Your task to perform on an android device: toggle notifications settings in the gmail app Image 0: 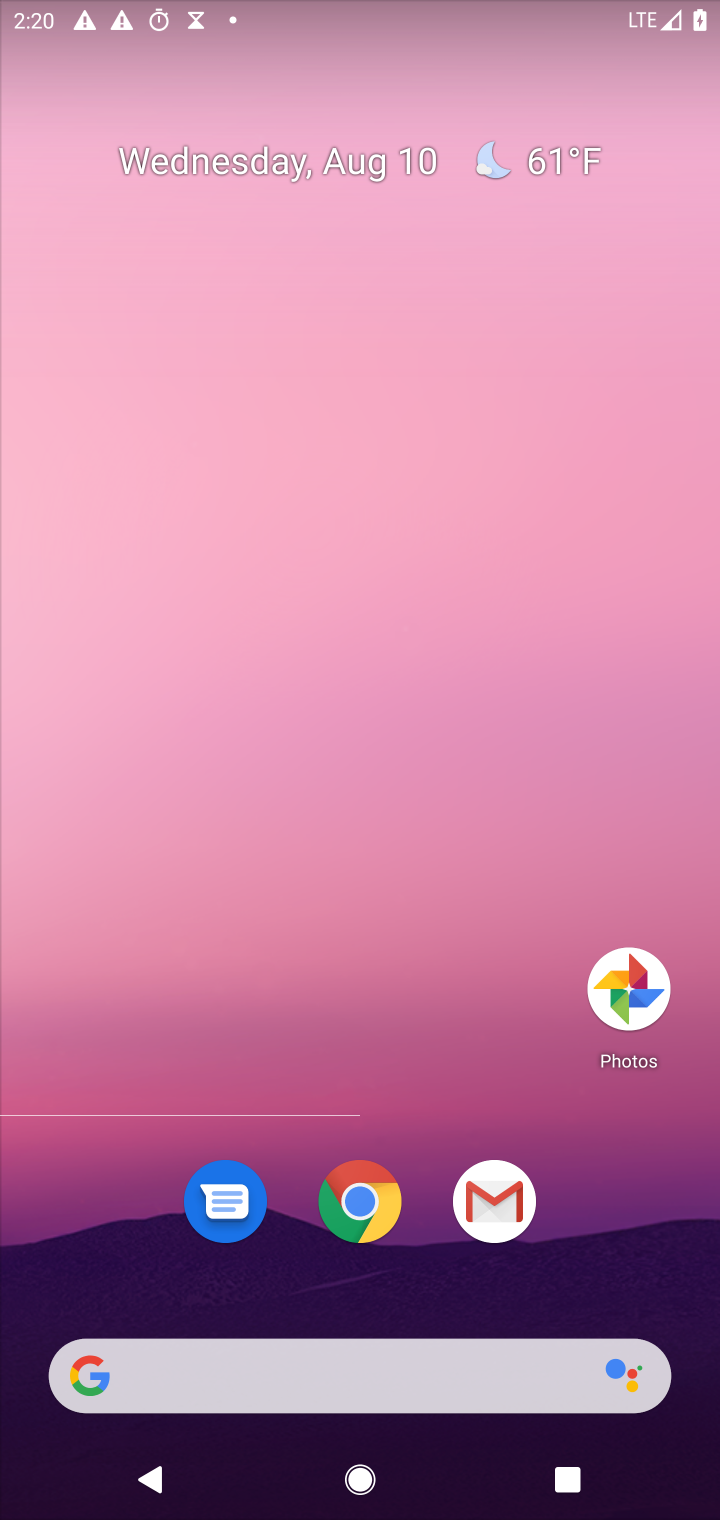
Step 0: click (476, 1195)
Your task to perform on an android device: toggle notifications settings in the gmail app Image 1: 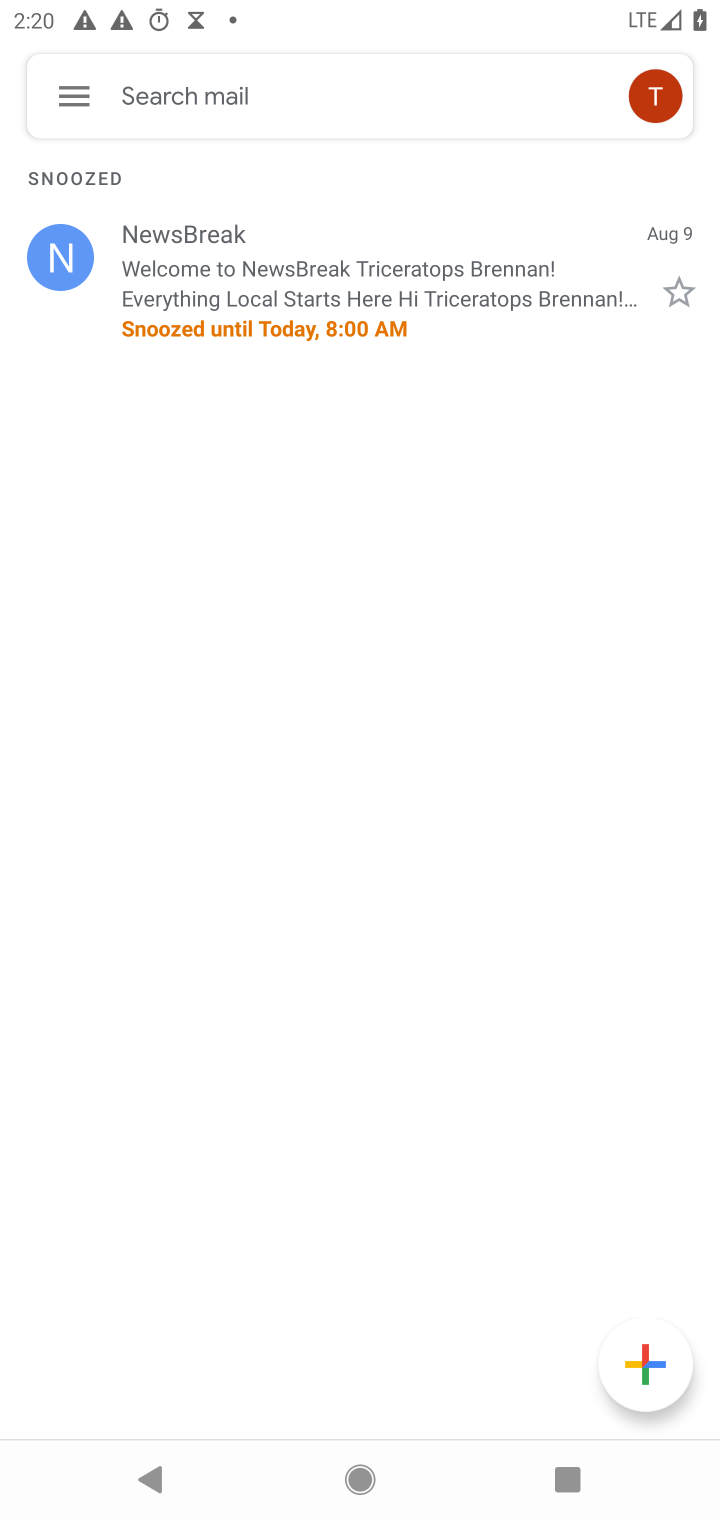
Step 1: click (69, 86)
Your task to perform on an android device: toggle notifications settings in the gmail app Image 2: 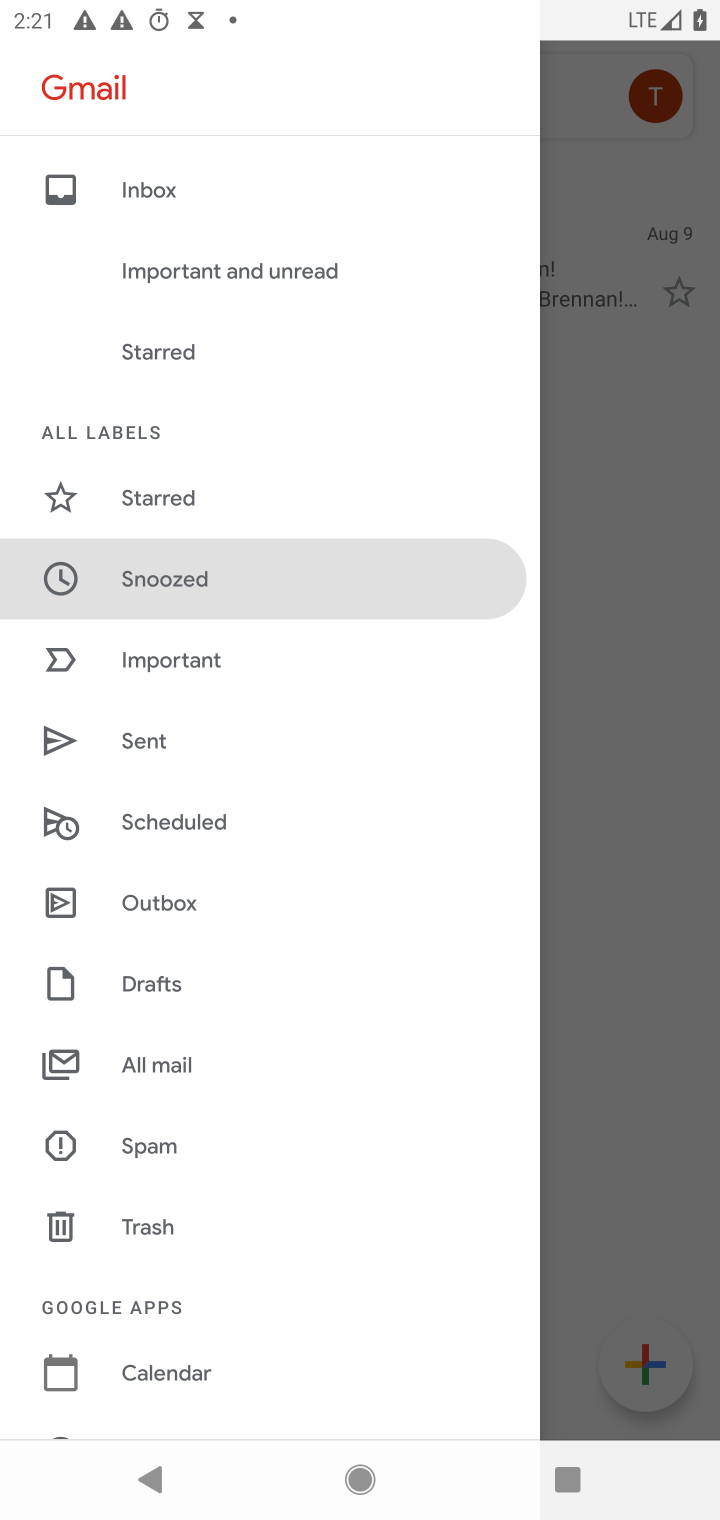
Step 2: drag from (309, 1308) to (383, 446)
Your task to perform on an android device: toggle notifications settings in the gmail app Image 3: 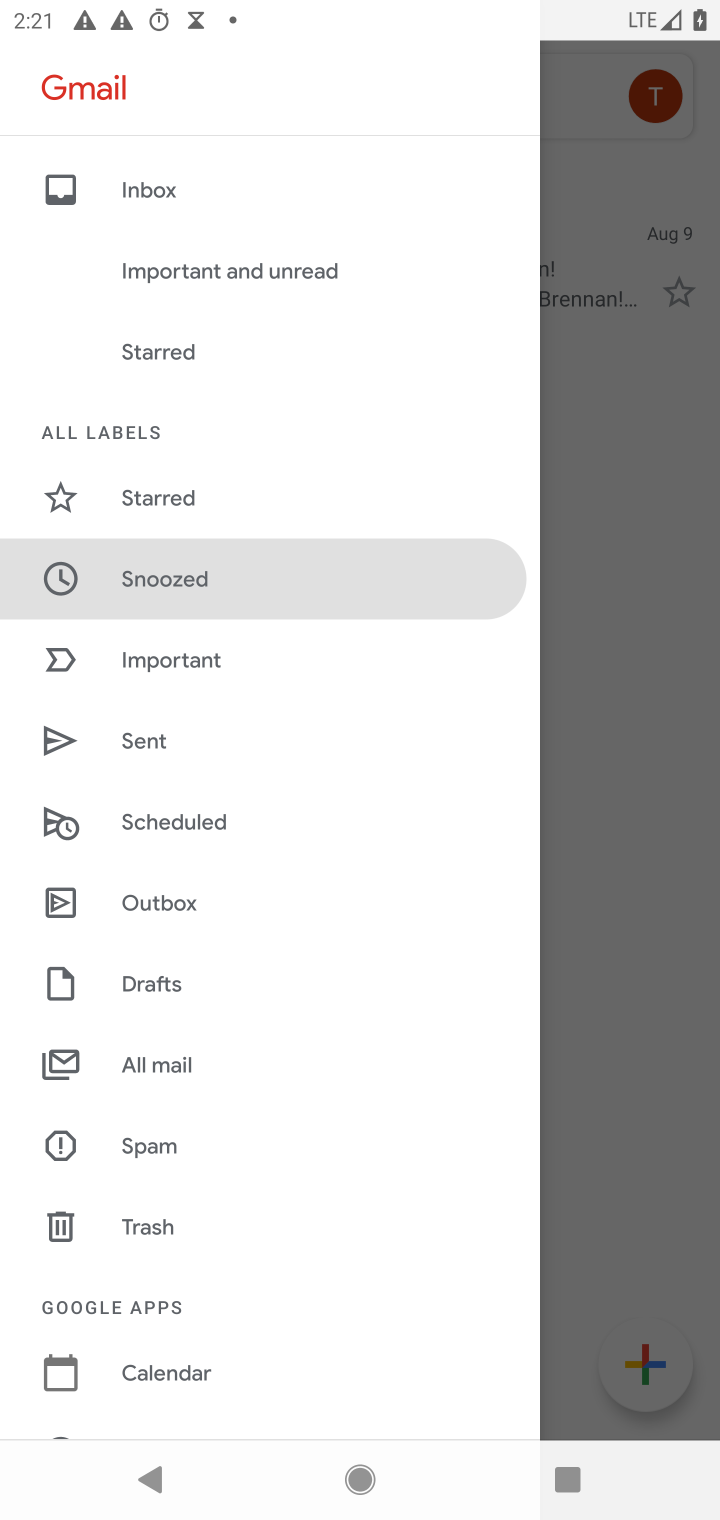
Step 3: drag from (337, 1321) to (416, 447)
Your task to perform on an android device: toggle notifications settings in the gmail app Image 4: 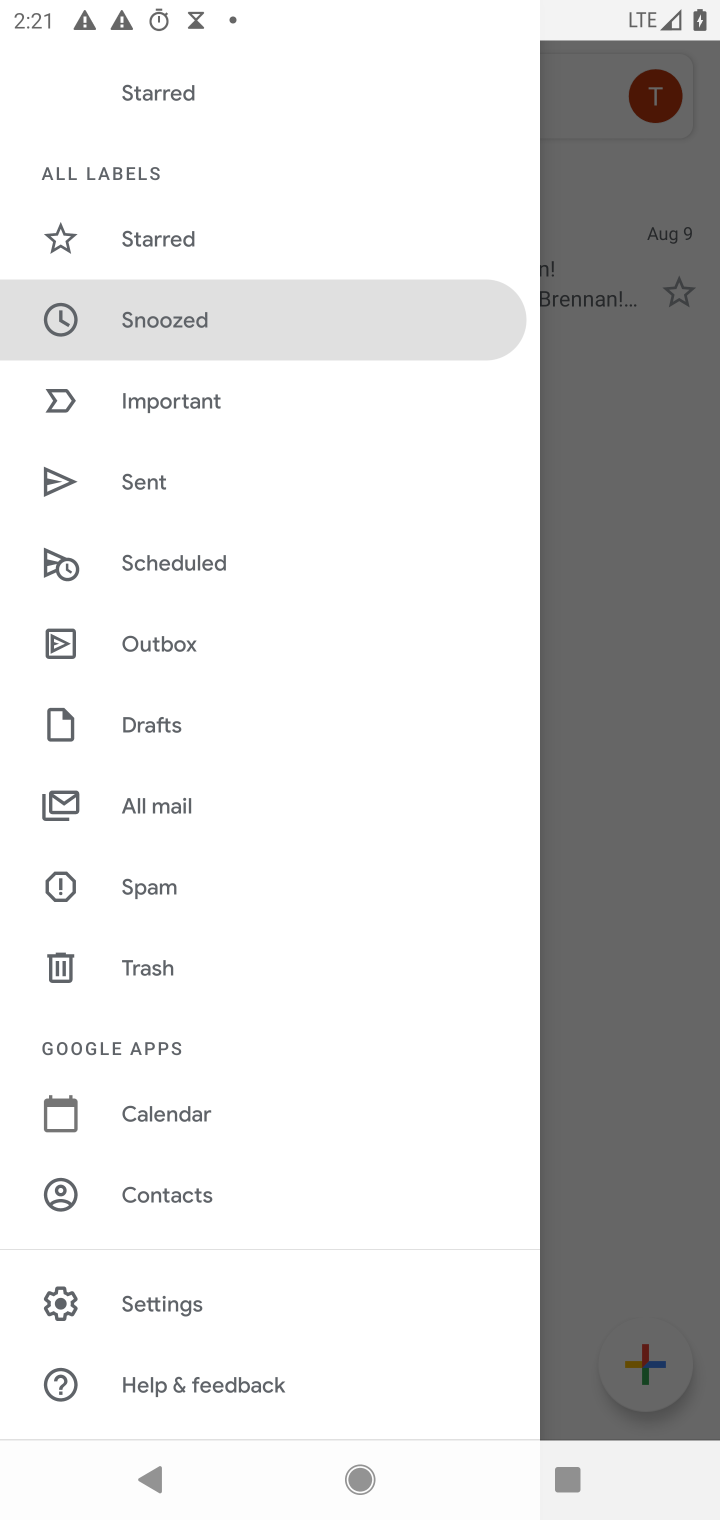
Step 4: click (143, 1308)
Your task to perform on an android device: toggle notifications settings in the gmail app Image 5: 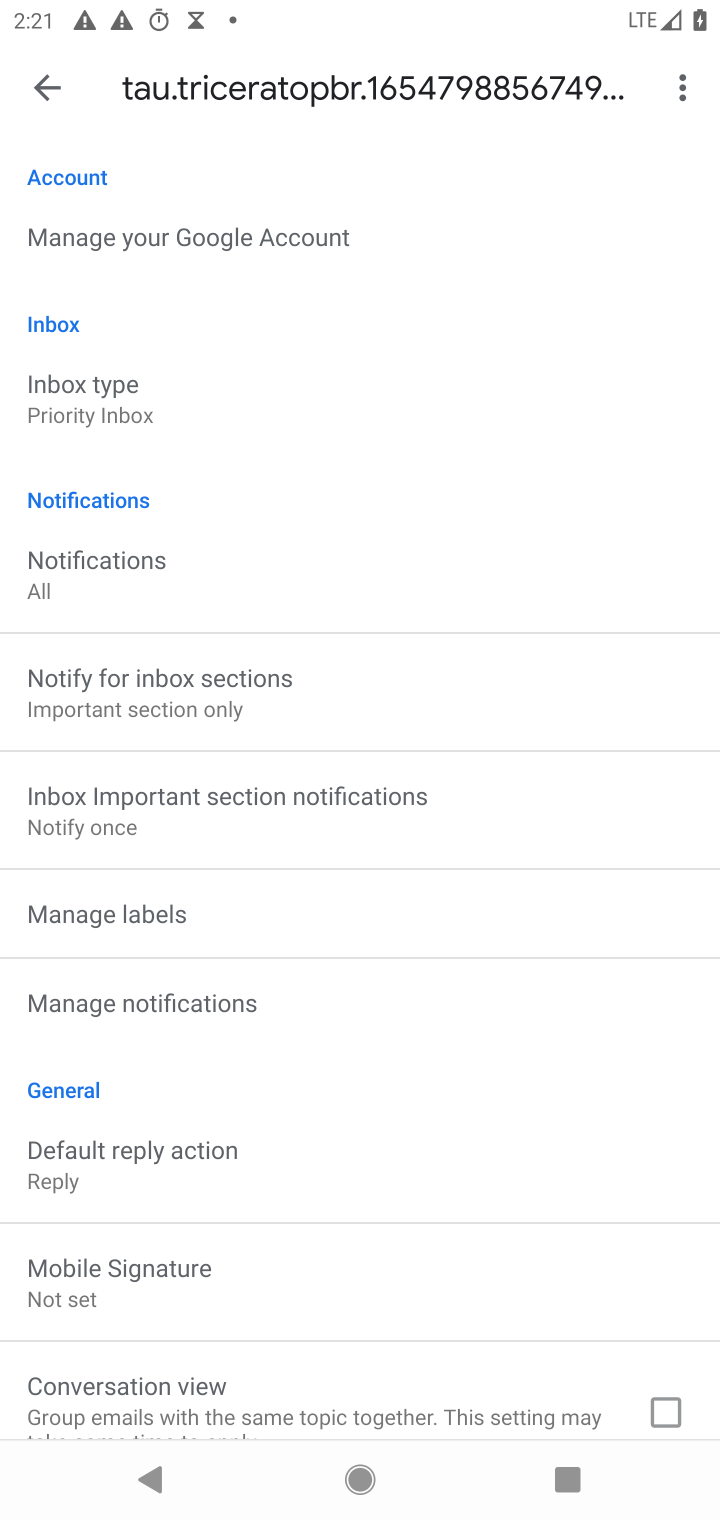
Step 5: click (135, 1019)
Your task to perform on an android device: toggle notifications settings in the gmail app Image 6: 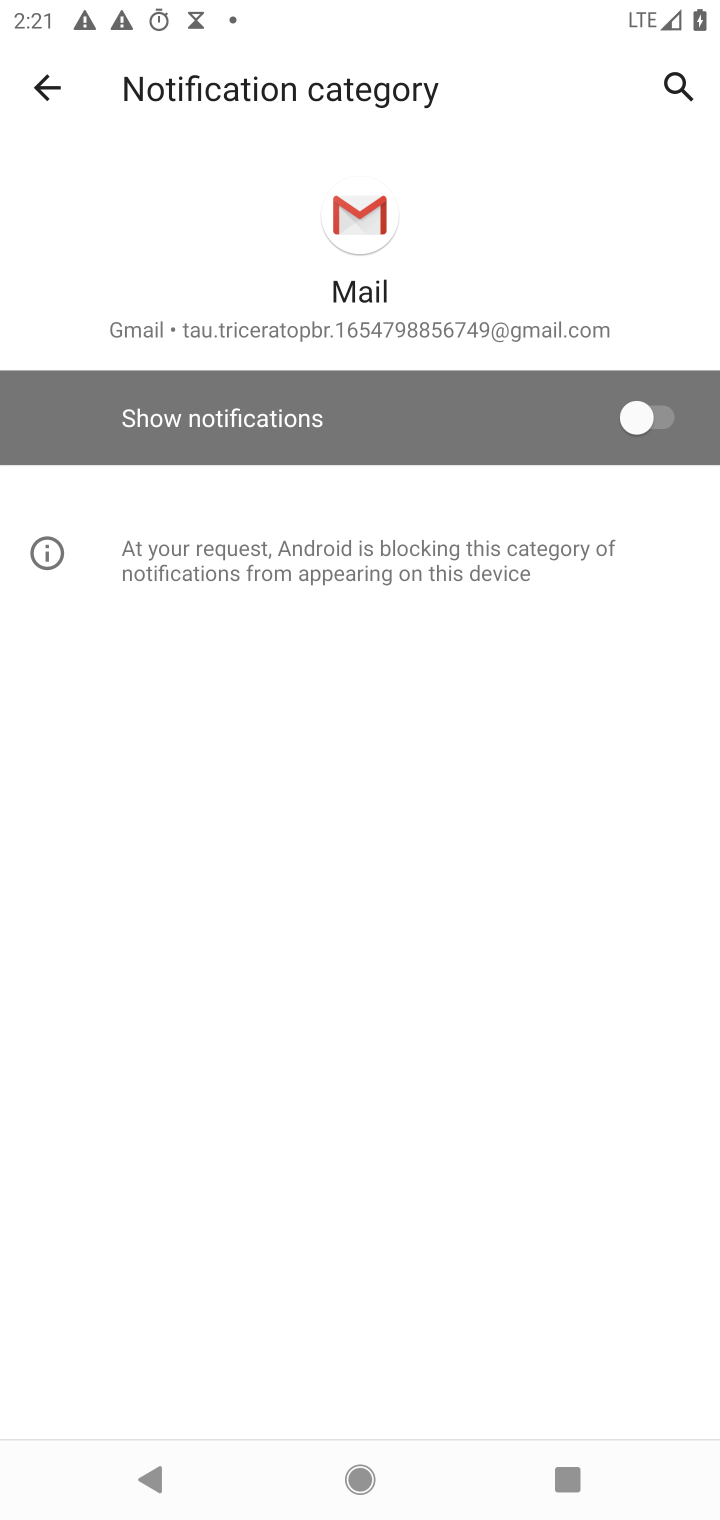
Step 6: click (635, 416)
Your task to perform on an android device: toggle notifications settings in the gmail app Image 7: 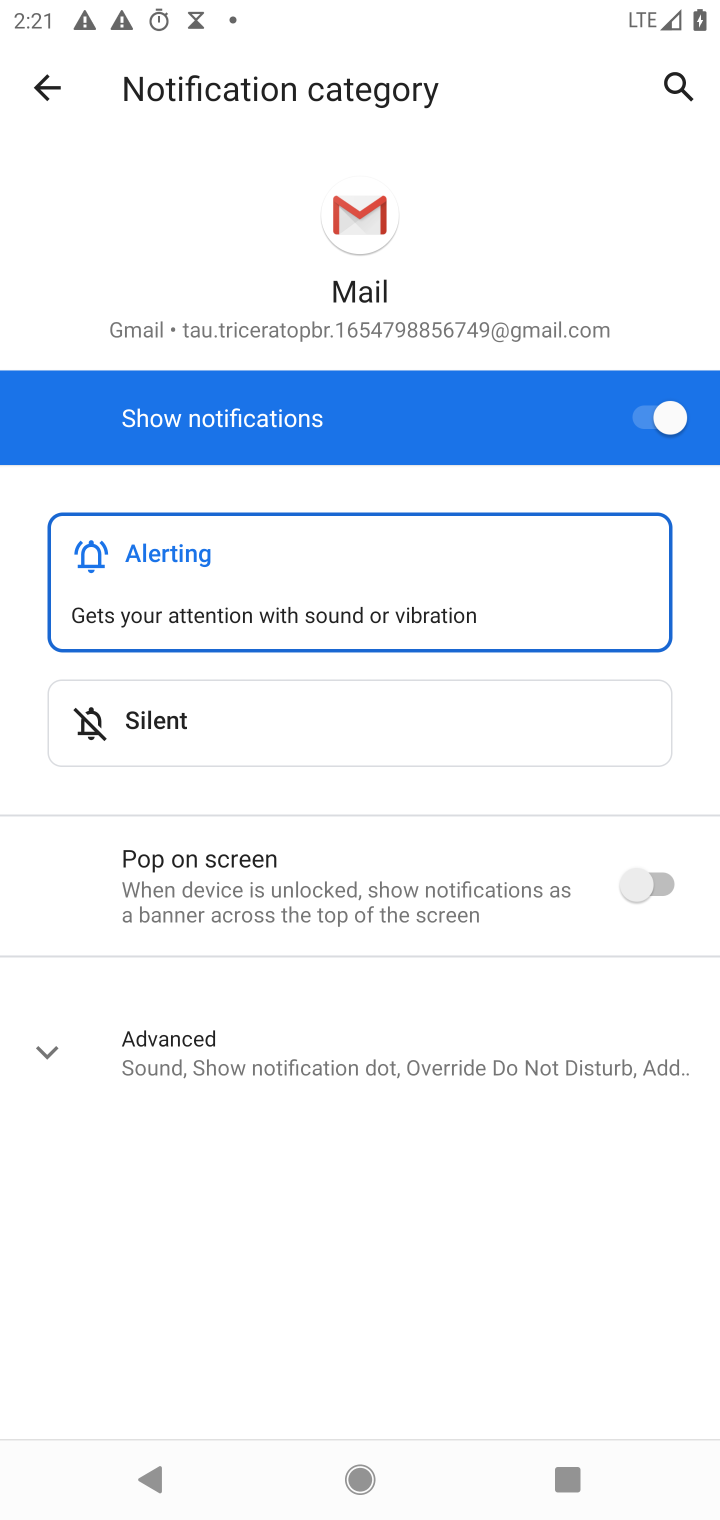
Step 7: task complete